Your task to perform on an android device: Open the map Image 0: 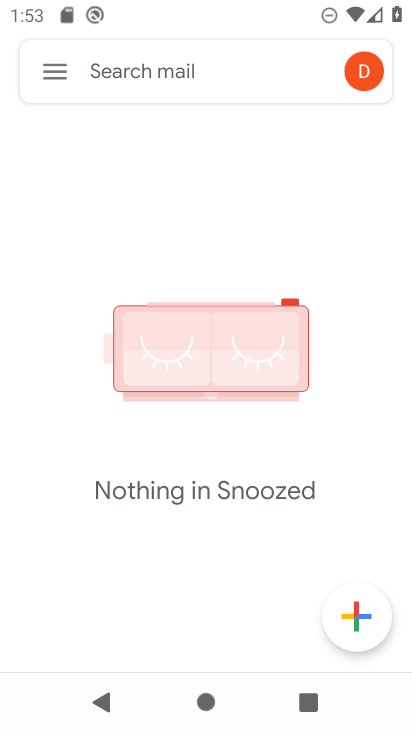
Step 0: press home button
Your task to perform on an android device: Open the map Image 1: 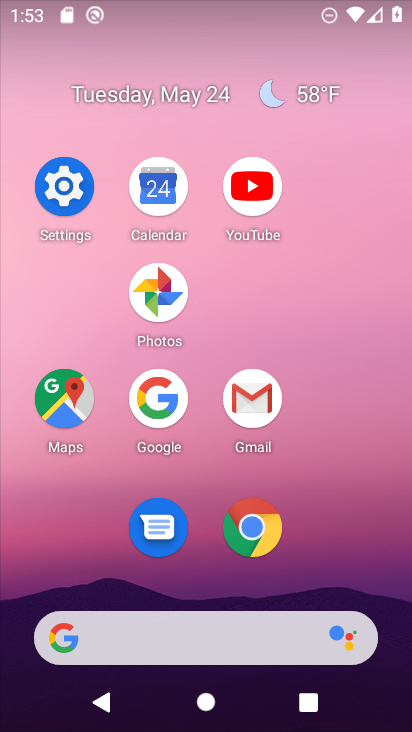
Step 1: click (67, 366)
Your task to perform on an android device: Open the map Image 2: 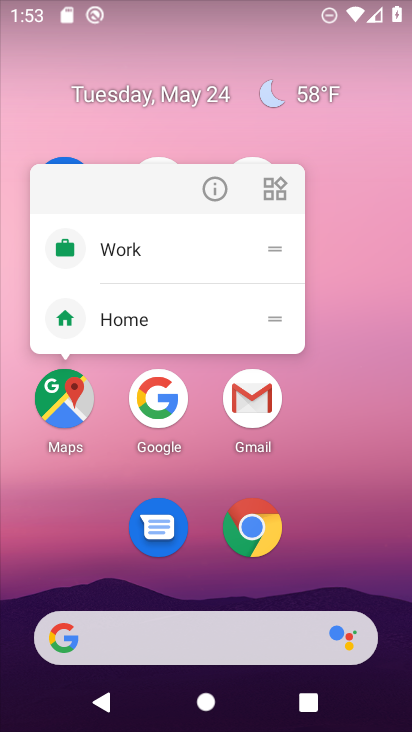
Step 2: click (65, 413)
Your task to perform on an android device: Open the map Image 3: 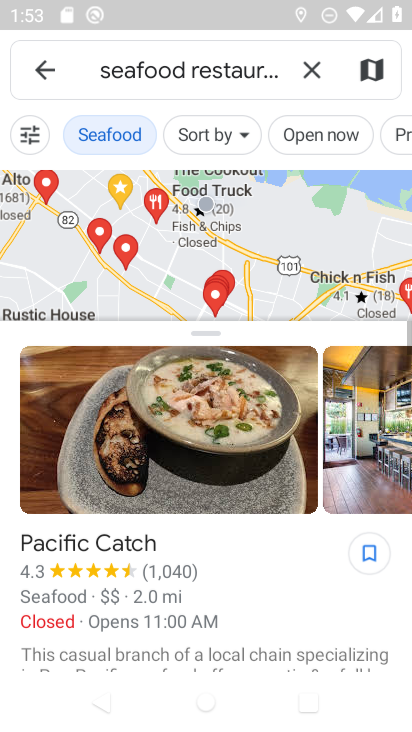
Step 3: task complete